Your task to perform on an android device: empty trash in google photos Image 0: 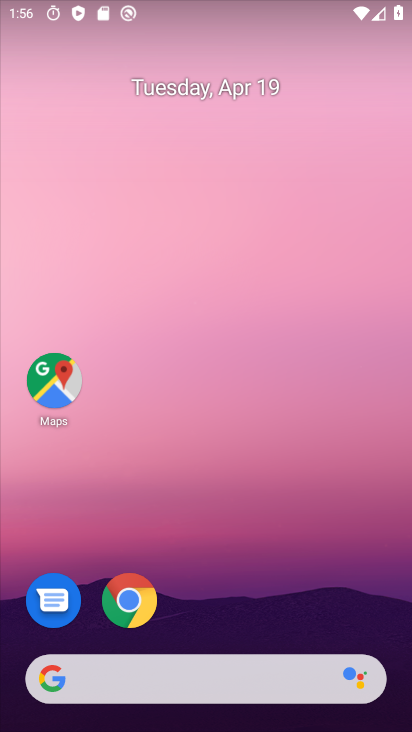
Step 0: drag from (223, 721) to (280, 29)
Your task to perform on an android device: empty trash in google photos Image 1: 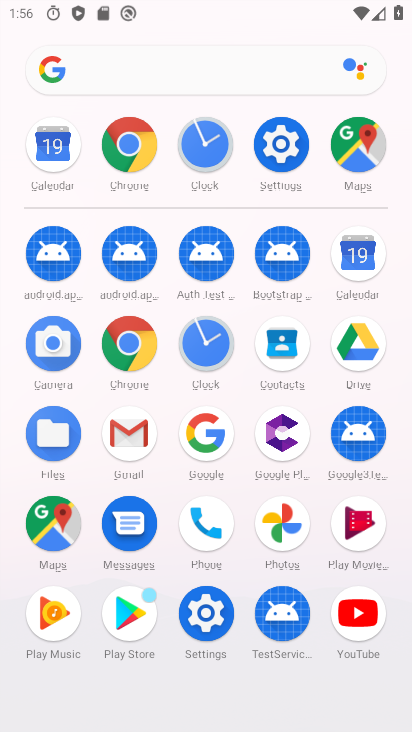
Step 1: click (241, 524)
Your task to perform on an android device: empty trash in google photos Image 2: 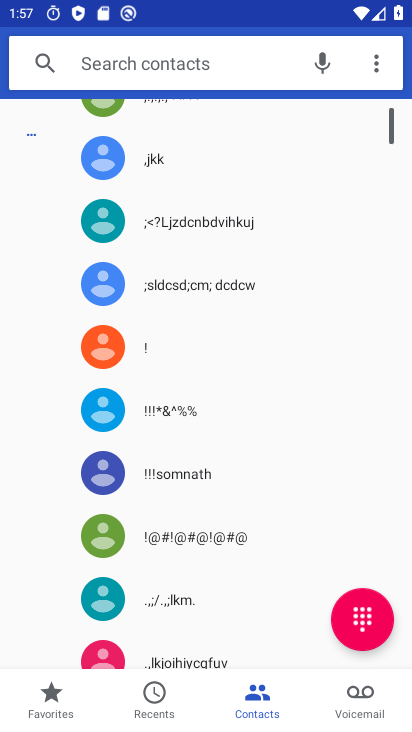
Step 2: press home button
Your task to perform on an android device: empty trash in google photos Image 3: 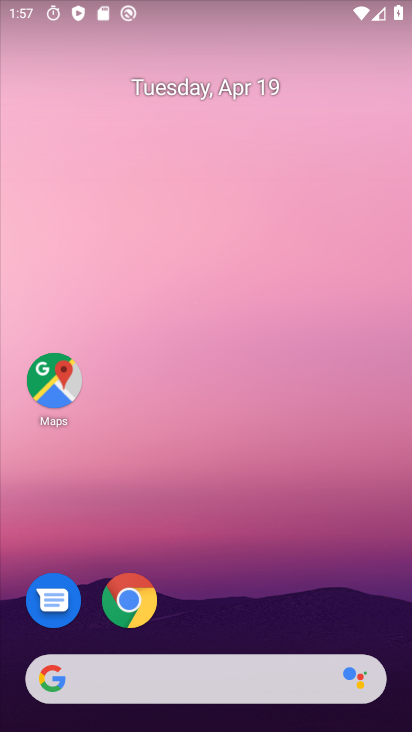
Step 3: drag from (278, 703) to (331, 225)
Your task to perform on an android device: empty trash in google photos Image 4: 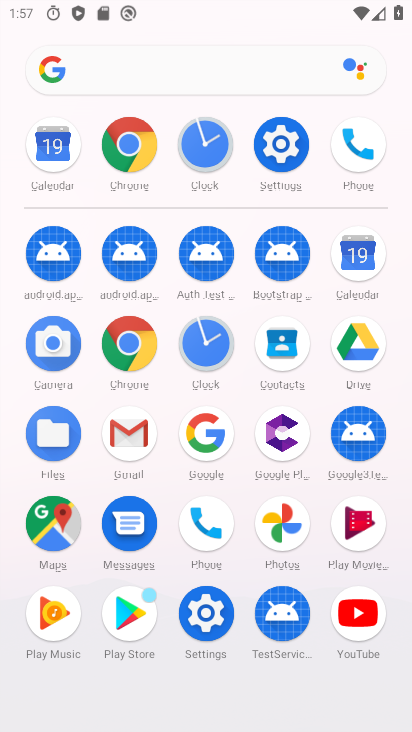
Step 4: click (269, 542)
Your task to perform on an android device: empty trash in google photos Image 5: 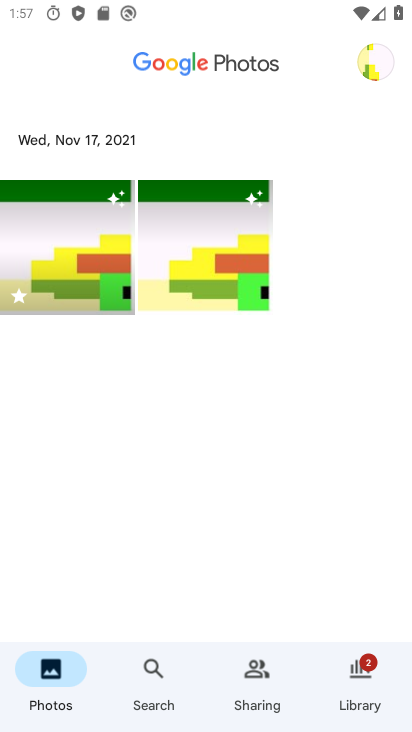
Step 5: click (138, 670)
Your task to perform on an android device: empty trash in google photos Image 6: 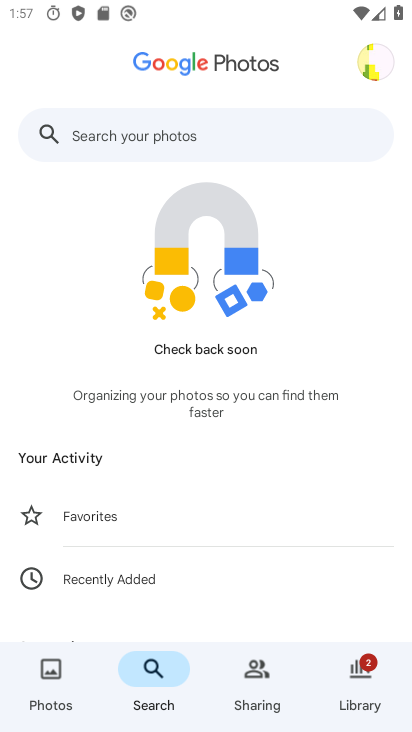
Step 6: click (137, 140)
Your task to perform on an android device: empty trash in google photos Image 7: 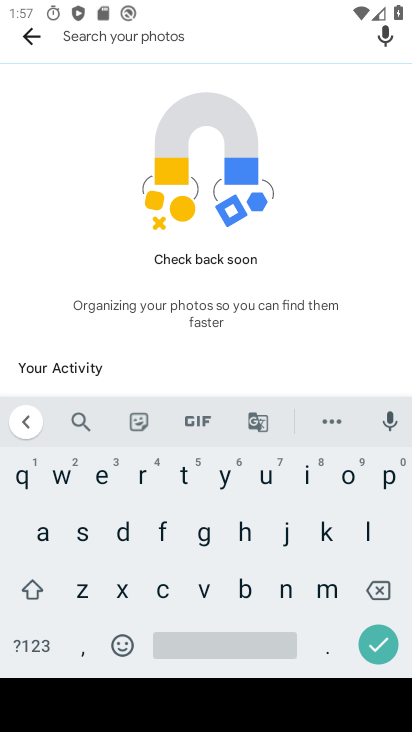
Step 7: click (182, 496)
Your task to perform on an android device: empty trash in google photos Image 8: 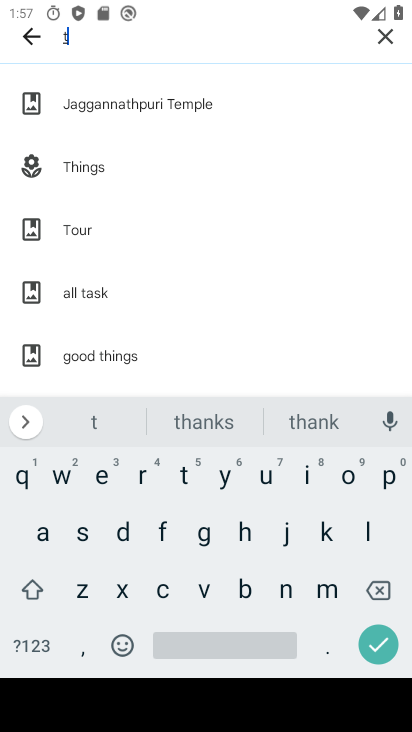
Step 8: click (146, 489)
Your task to perform on an android device: empty trash in google photos Image 9: 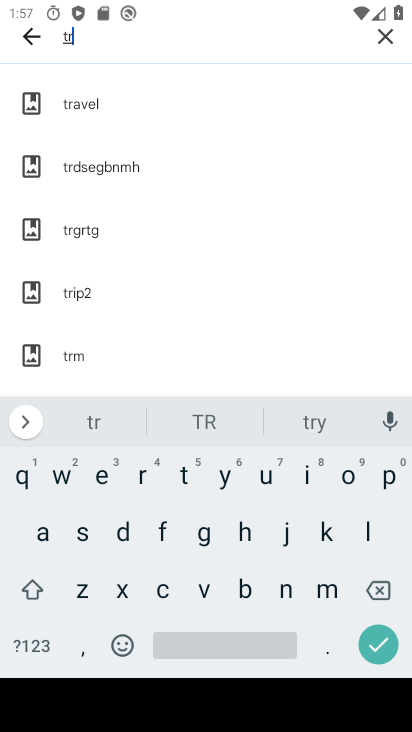
Step 9: click (49, 524)
Your task to perform on an android device: empty trash in google photos Image 10: 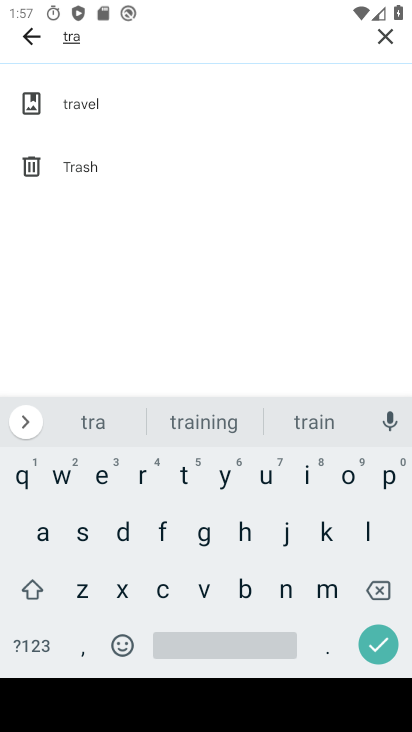
Step 10: click (118, 151)
Your task to perform on an android device: empty trash in google photos Image 11: 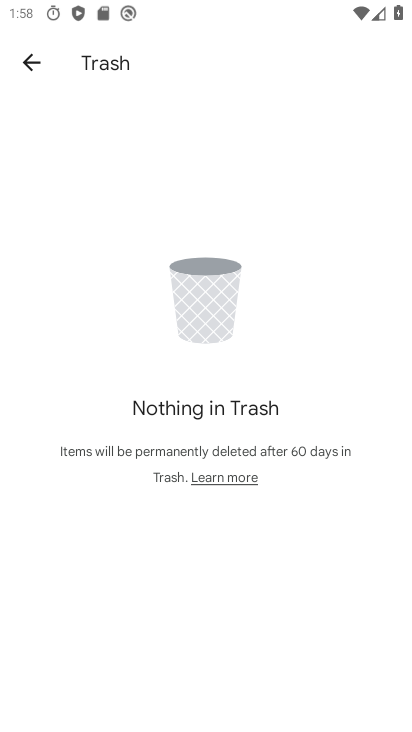
Step 11: task complete